Your task to perform on an android device: open a bookmark in the chrome app Image 0: 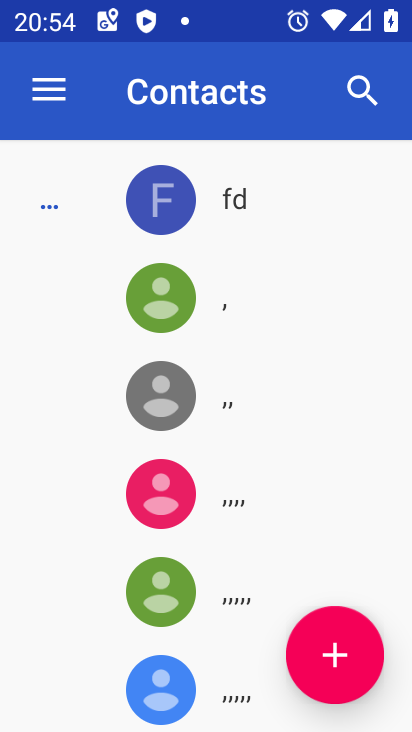
Step 0: press home button
Your task to perform on an android device: open a bookmark in the chrome app Image 1: 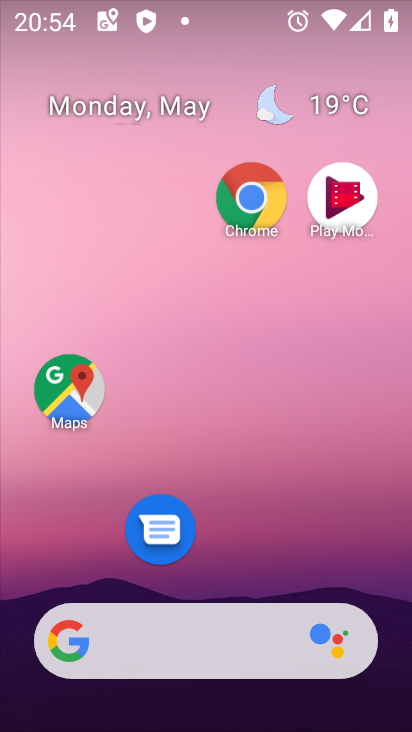
Step 1: click (250, 207)
Your task to perform on an android device: open a bookmark in the chrome app Image 2: 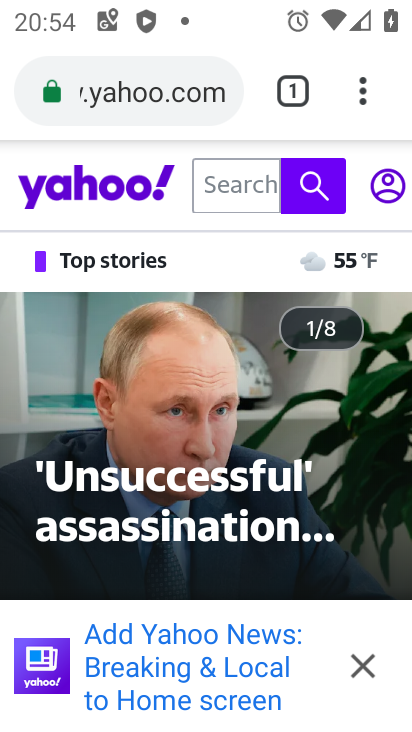
Step 2: click (361, 102)
Your task to perform on an android device: open a bookmark in the chrome app Image 3: 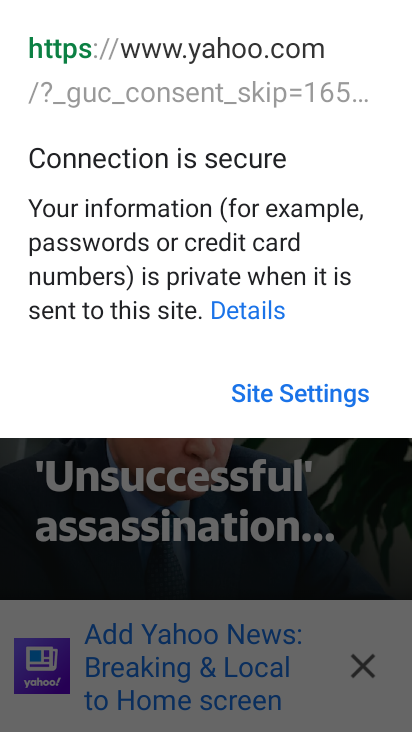
Step 3: click (207, 467)
Your task to perform on an android device: open a bookmark in the chrome app Image 4: 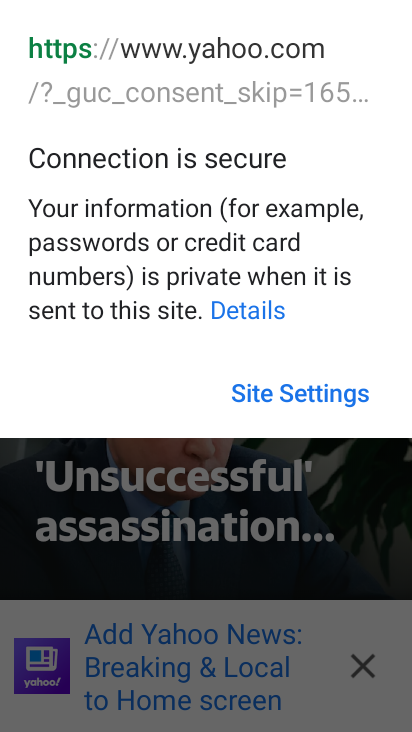
Step 4: click (175, 461)
Your task to perform on an android device: open a bookmark in the chrome app Image 5: 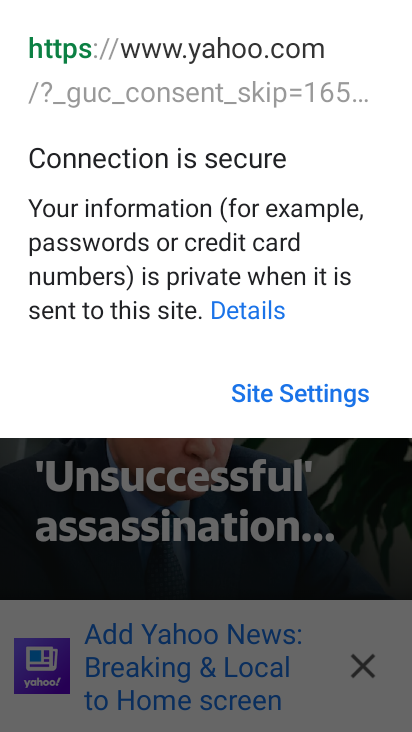
Step 5: click (148, 457)
Your task to perform on an android device: open a bookmark in the chrome app Image 6: 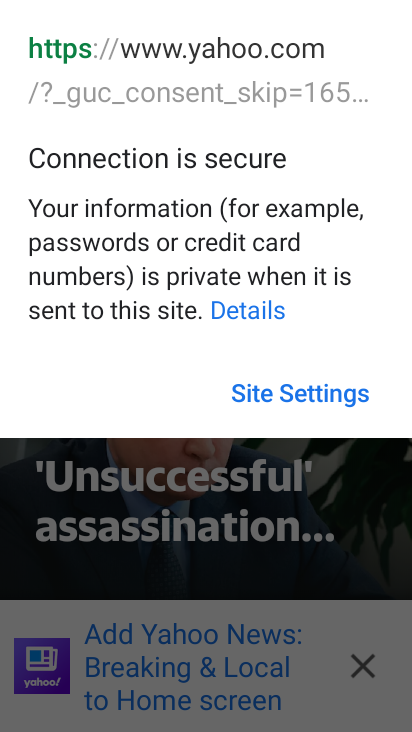
Step 6: click (148, 457)
Your task to perform on an android device: open a bookmark in the chrome app Image 7: 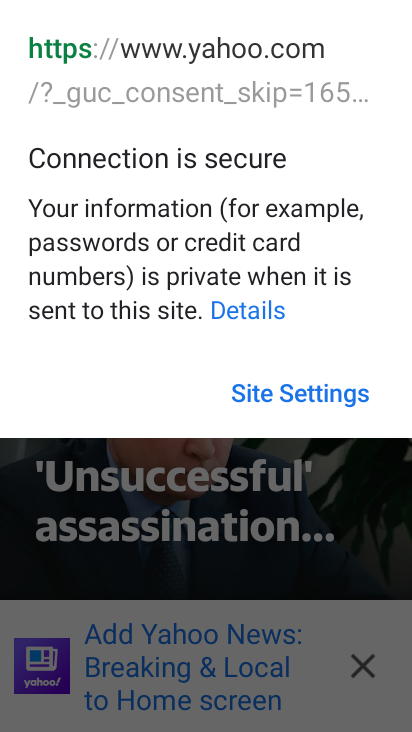
Step 7: click (148, 457)
Your task to perform on an android device: open a bookmark in the chrome app Image 8: 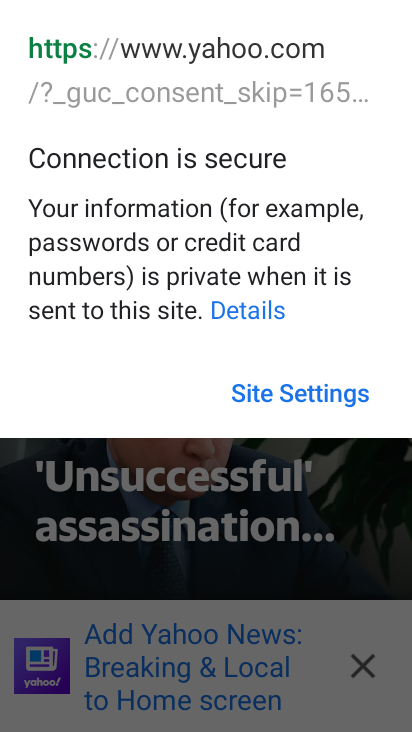
Step 8: click (148, 457)
Your task to perform on an android device: open a bookmark in the chrome app Image 9: 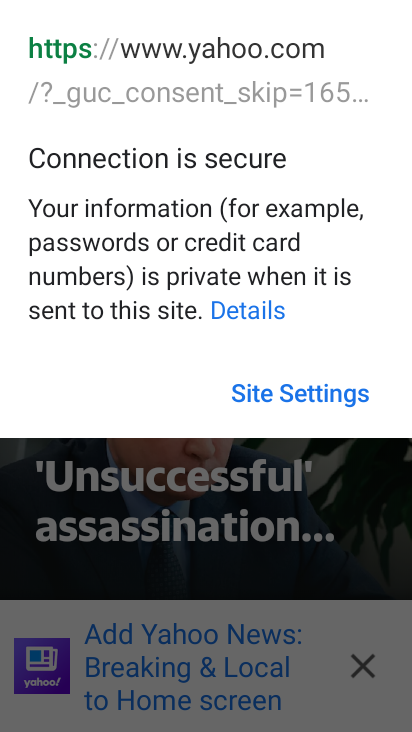
Step 9: click (148, 457)
Your task to perform on an android device: open a bookmark in the chrome app Image 10: 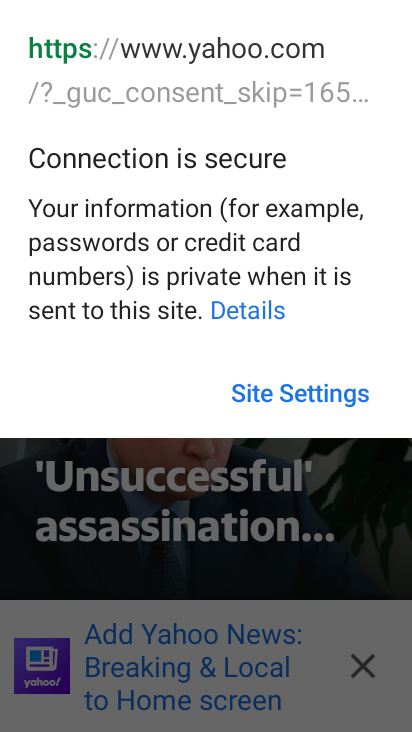
Step 10: press back button
Your task to perform on an android device: open a bookmark in the chrome app Image 11: 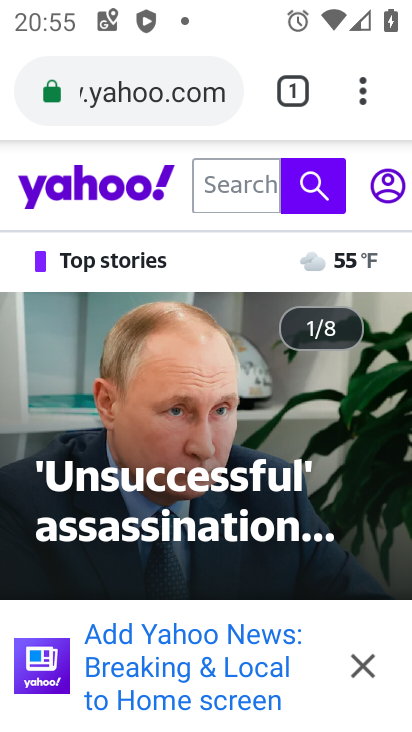
Step 11: click (364, 91)
Your task to perform on an android device: open a bookmark in the chrome app Image 12: 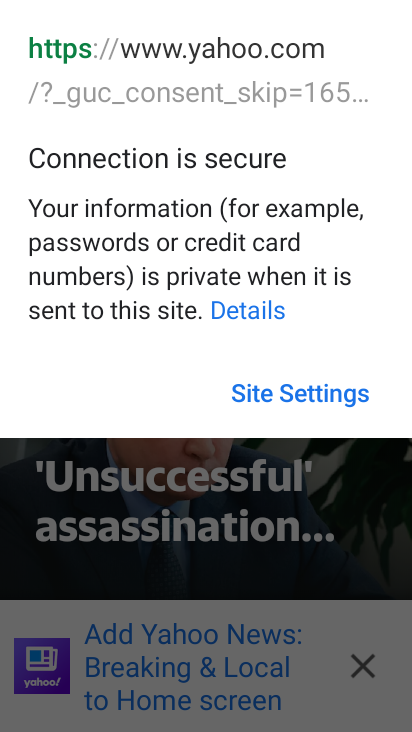
Step 12: click (163, 508)
Your task to perform on an android device: open a bookmark in the chrome app Image 13: 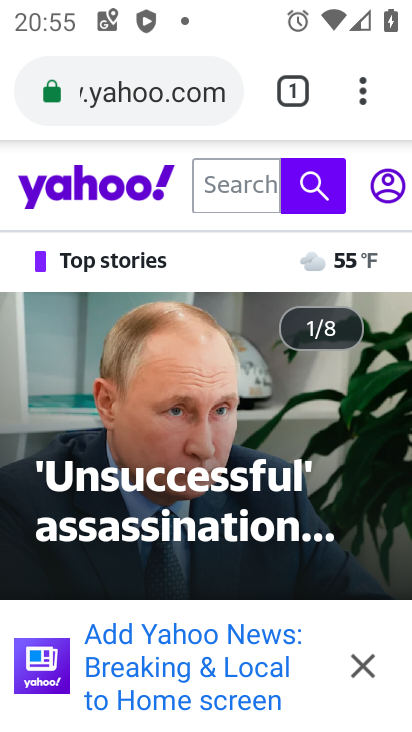
Step 13: click (365, 101)
Your task to perform on an android device: open a bookmark in the chrome app Image 14: 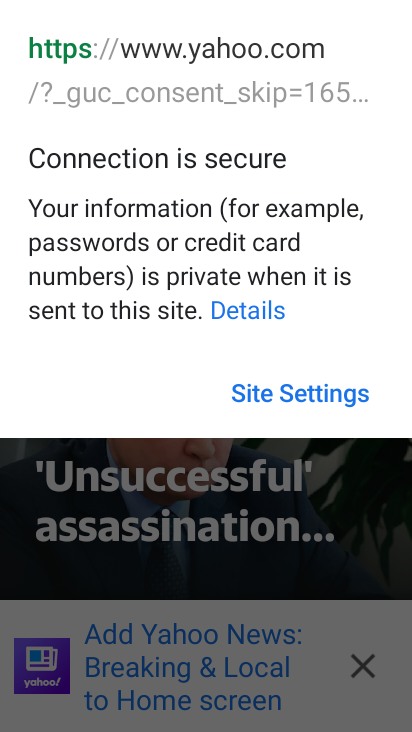
Step 14: click (252, 469)
Your task to perform on an android device: open a bookmark in the chrome app Image 15: 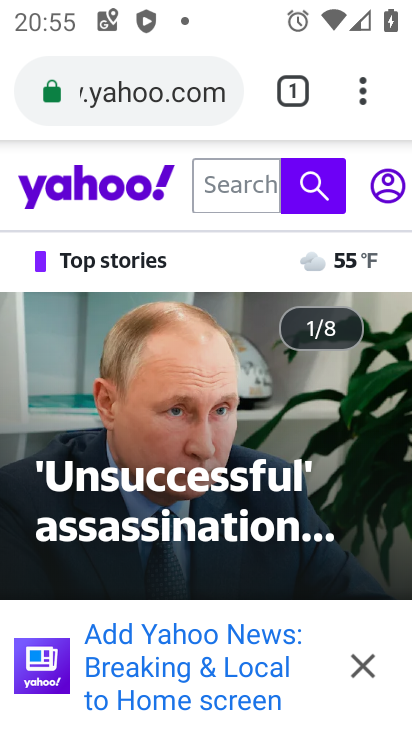
Step 15: click (369, 94)
Your task to perform on an android device: open a bookmark in the chrome app Image 16: 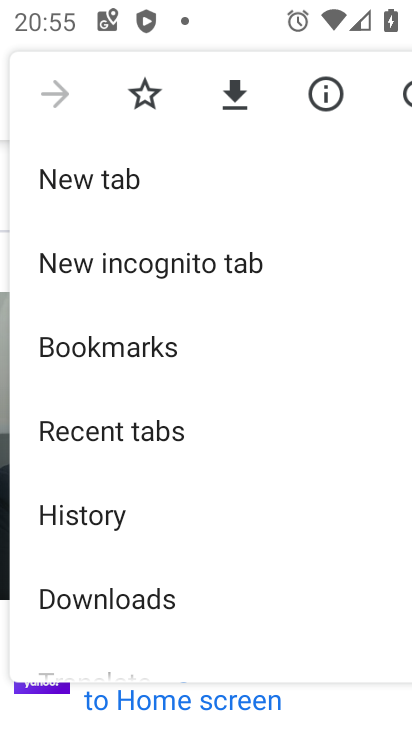
Step 16: click (137, 361)
Your task to perform on an android device: open a bookmark in the chrome app Image 17: 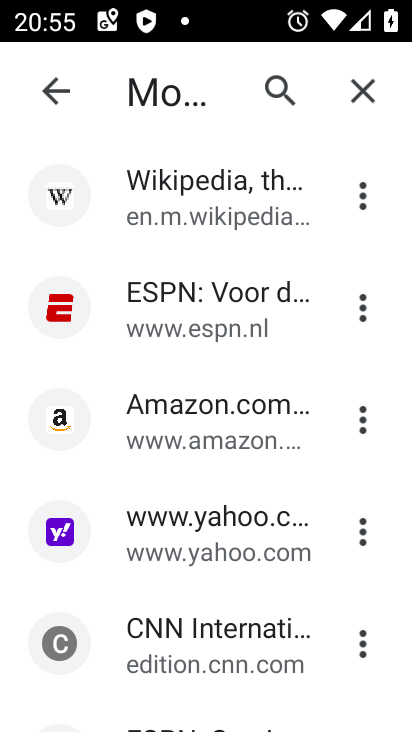
Step 17: click (188, 234)
Your task to perform on an android device: open a bookmark in the chrome app Image 18: 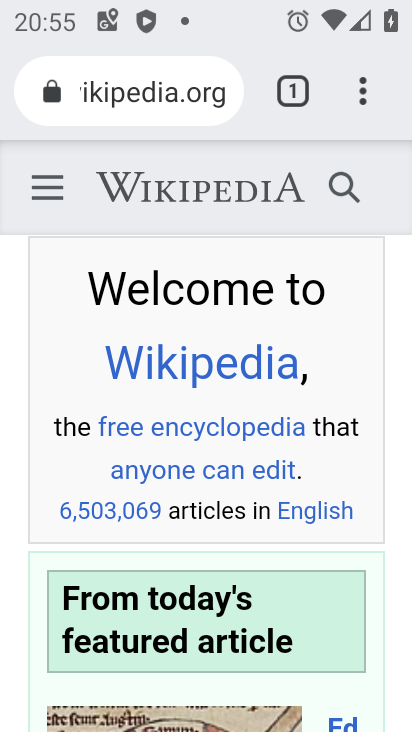
Step 18: task complete